Your task to perform on an android device: What's the weather today? Image 0: 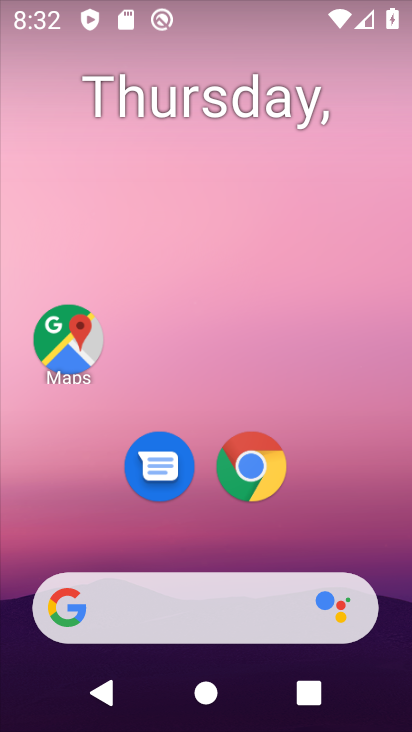
Step 0: press home button
Your task to perform on an android device: What's the weather today? Image 1: 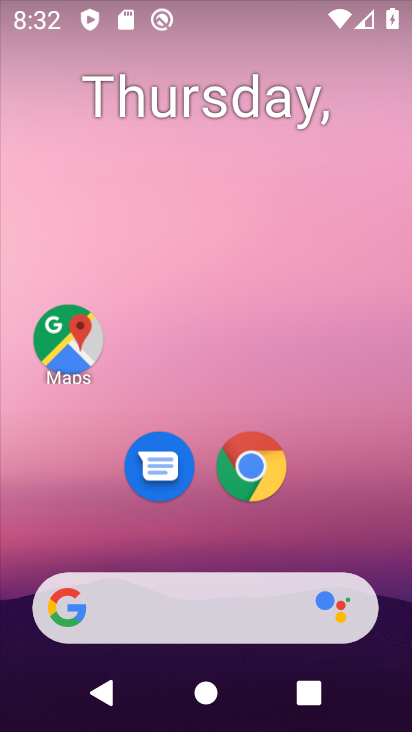
Step 1: click (78, 613)
Your task to perform on an android device: What's the weather today? Image 2: 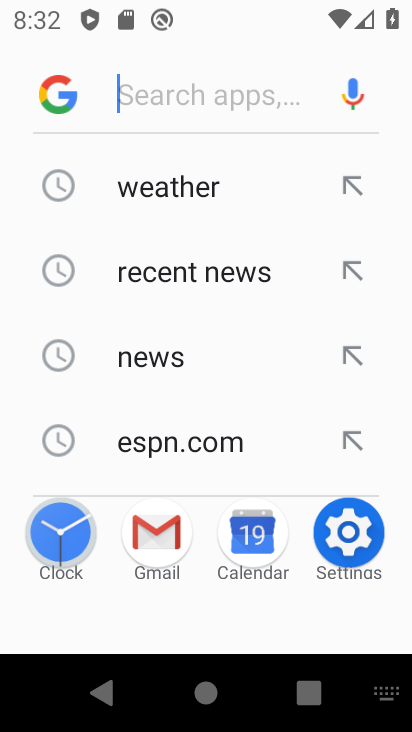
Step 2: click (191, 185)
Your task to perform on an android device: What's the weather today? Image 3: 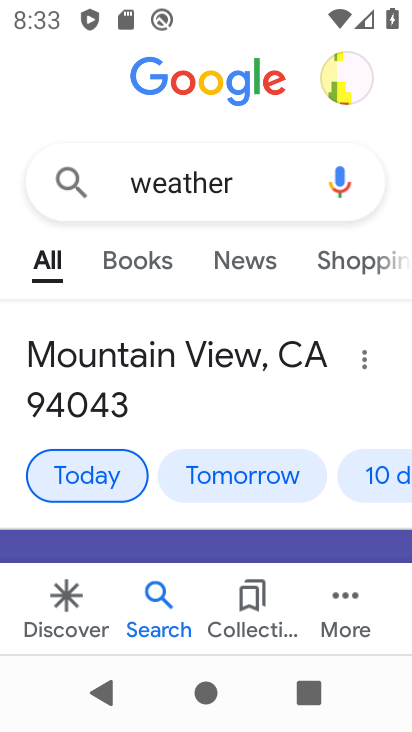
Step 3: task complete